Your task to perform on an android device: delete browsing data in the chrome app Image 0: 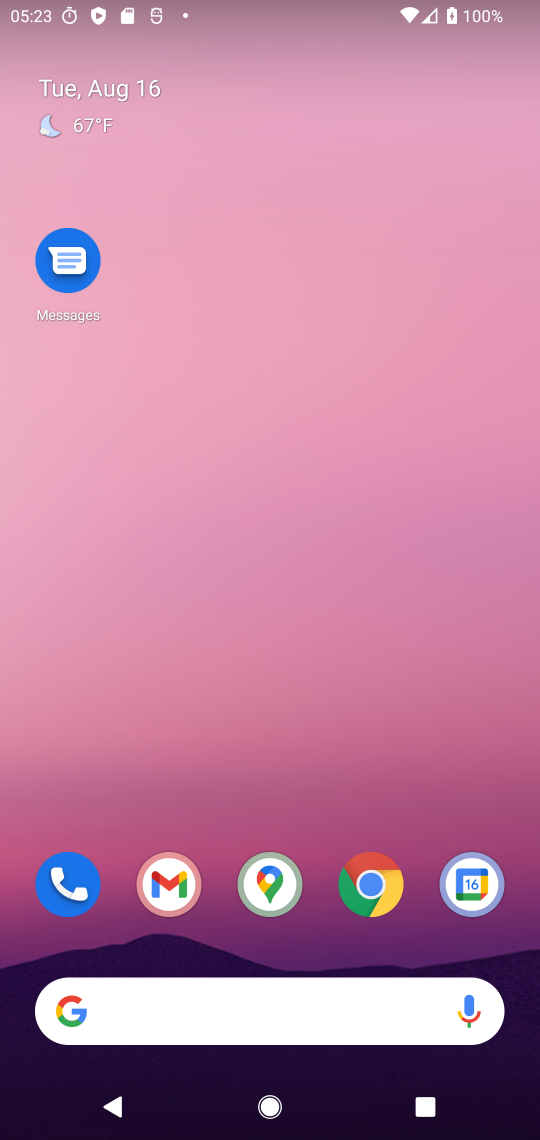
Step 0: click (367, 880)
Your task to perform on an android device: delete browsing data in the chrome app Image 1: 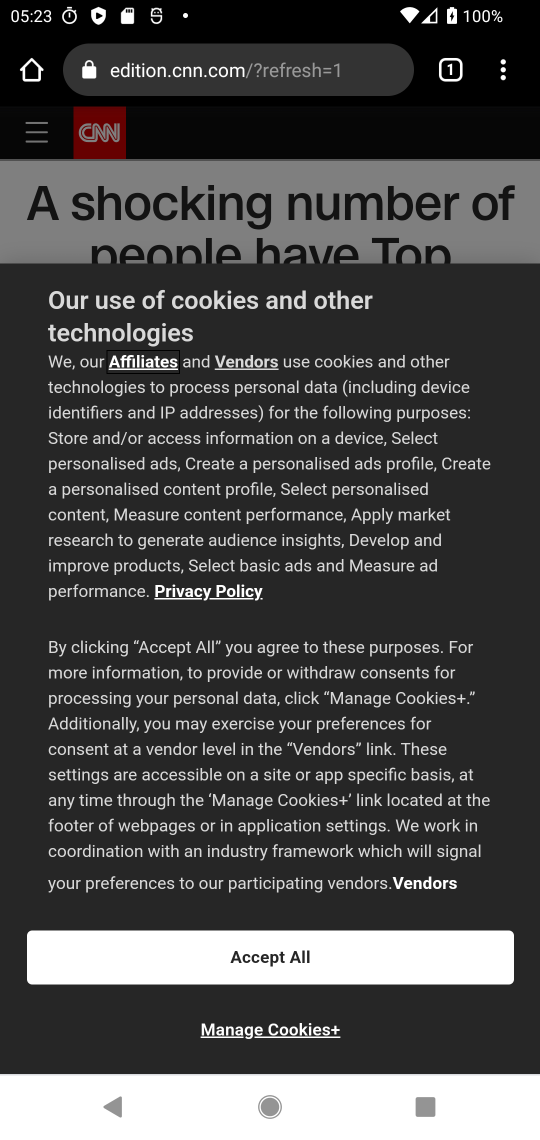
Step 1: click (508, 76)
Your task to perform on an android device: delete browsing data in the chrome app Image 2: 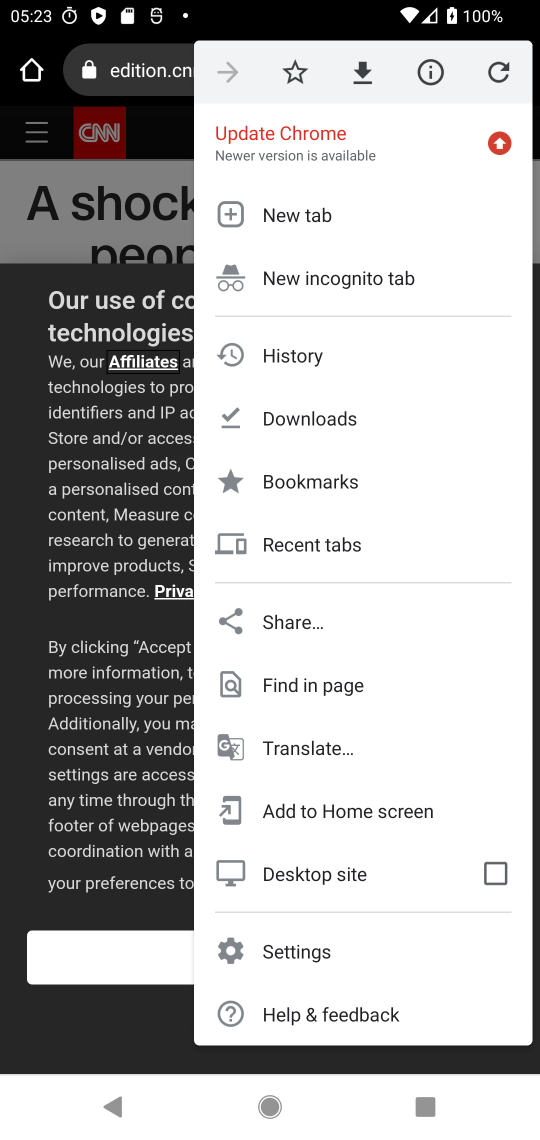
Step 2: click (299, 353)
Your task to perform on an android device: delete browsing data in the chrome app Image 3: 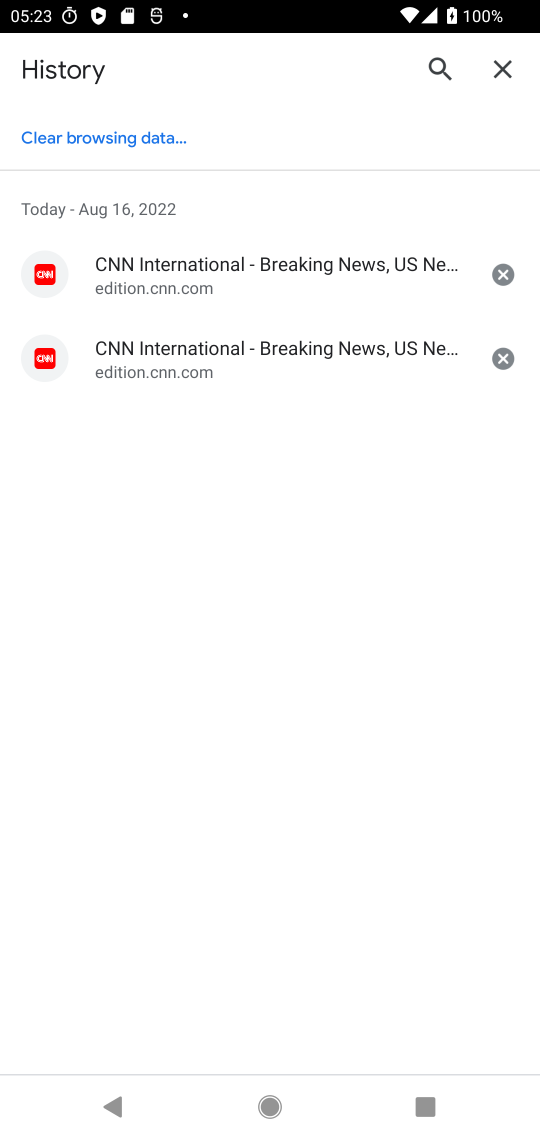
Step 3: click (110, 132)
Your task to perform on an android device: delete browsing data in the chrome app Image 4: 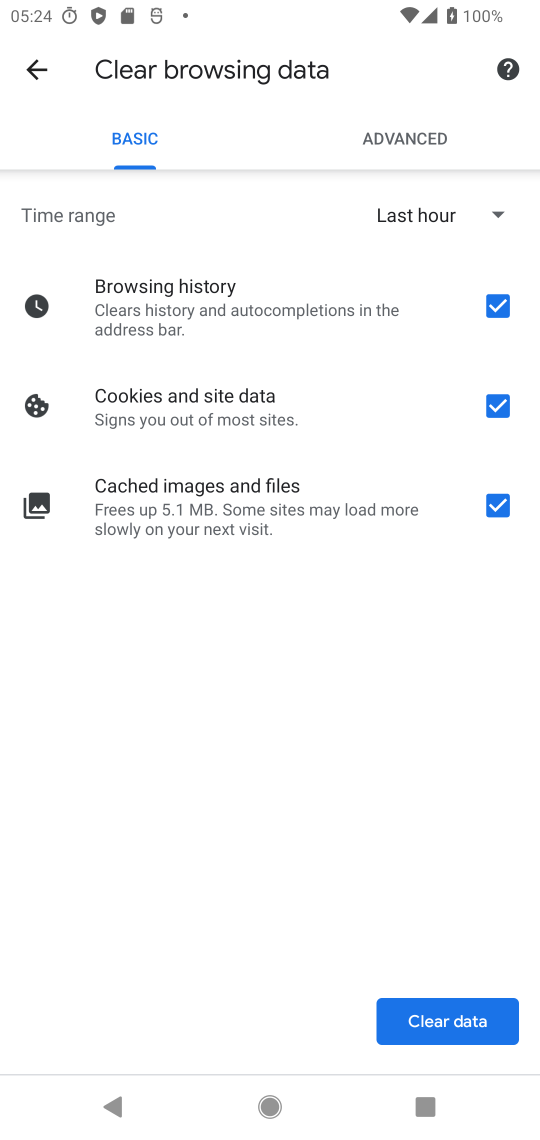
Step 4: click (440, 1022)
Your task to perform on an android device: delete browsing data in the chrome app Image 5: 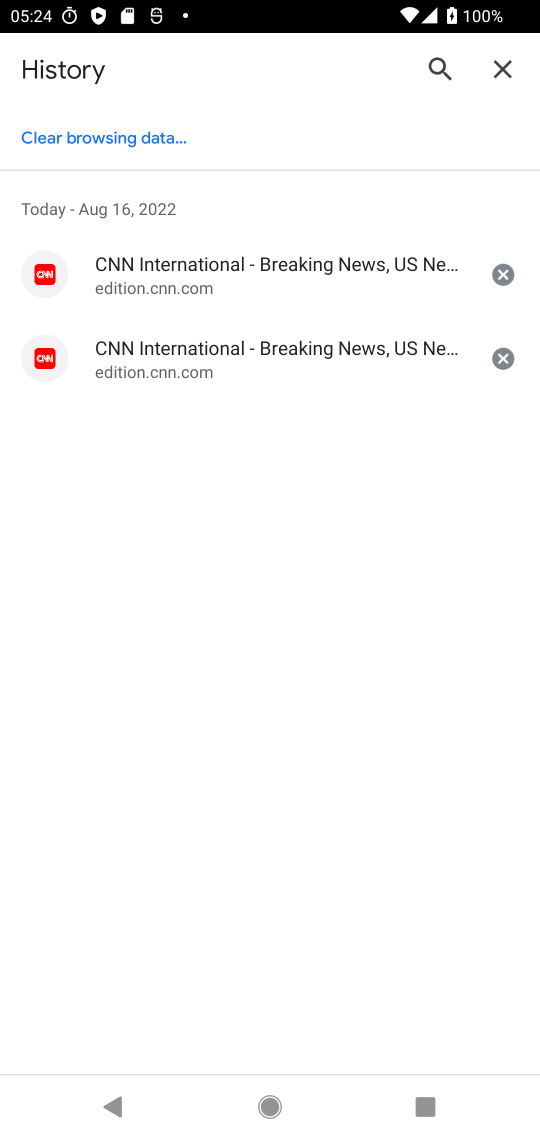
Step 5: click (104, 129)
Your task to perform on an android device: delete browsing data in the chrome app Image 6: 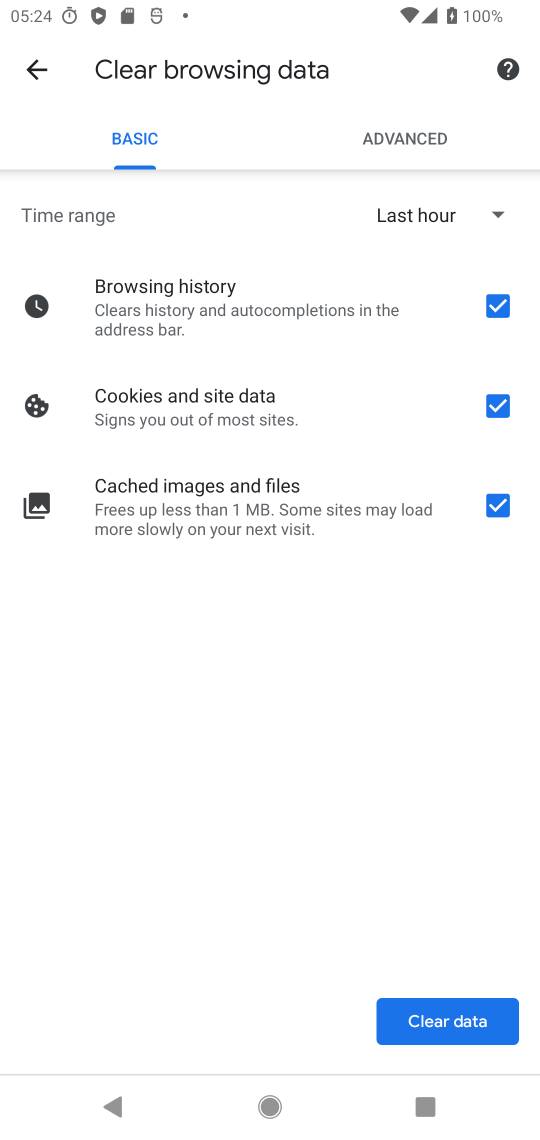
Step 6: click (504, 405)
Your task to perform on an android device: delete browsing data in the chrome app Image 7: 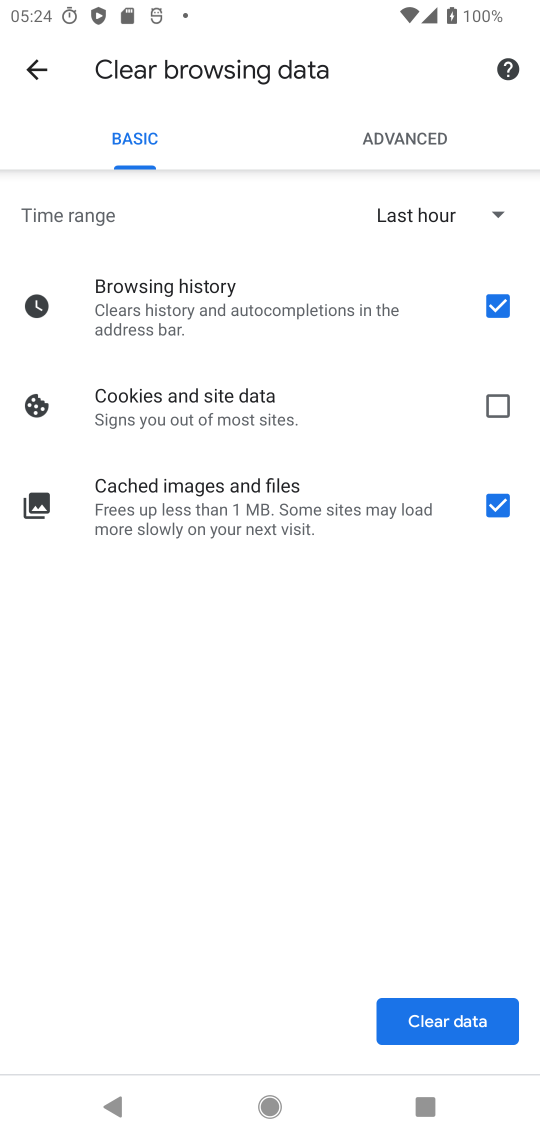
Step 7: click (496, 507)
Your task to perform on an android device: delete browsing data in the chrome app Image 8: 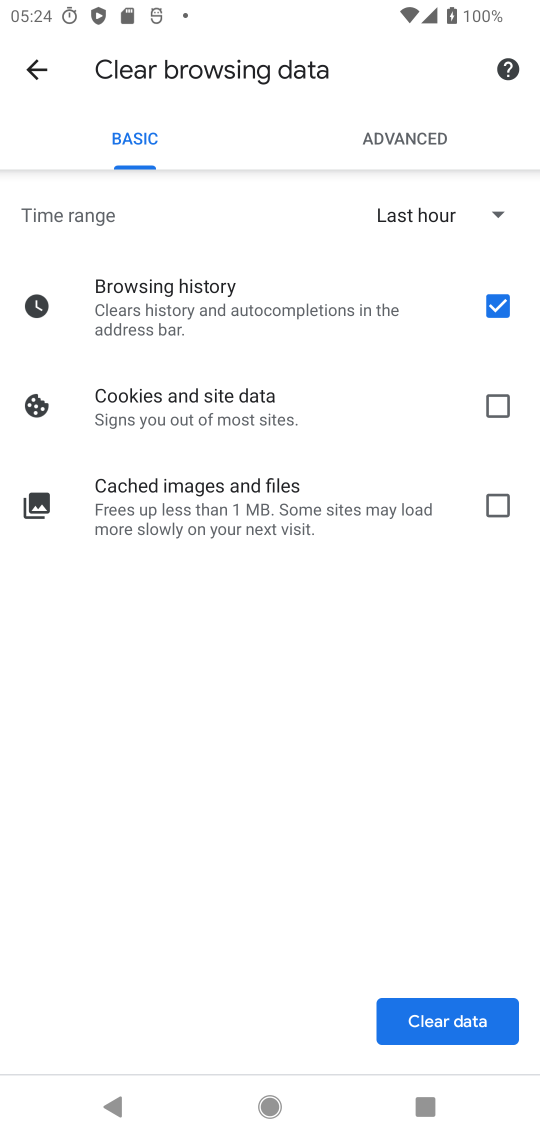
Step 8: click (442, 1024)
Your task to perform on an android device: delete browsing data in the chrome app Image 9: 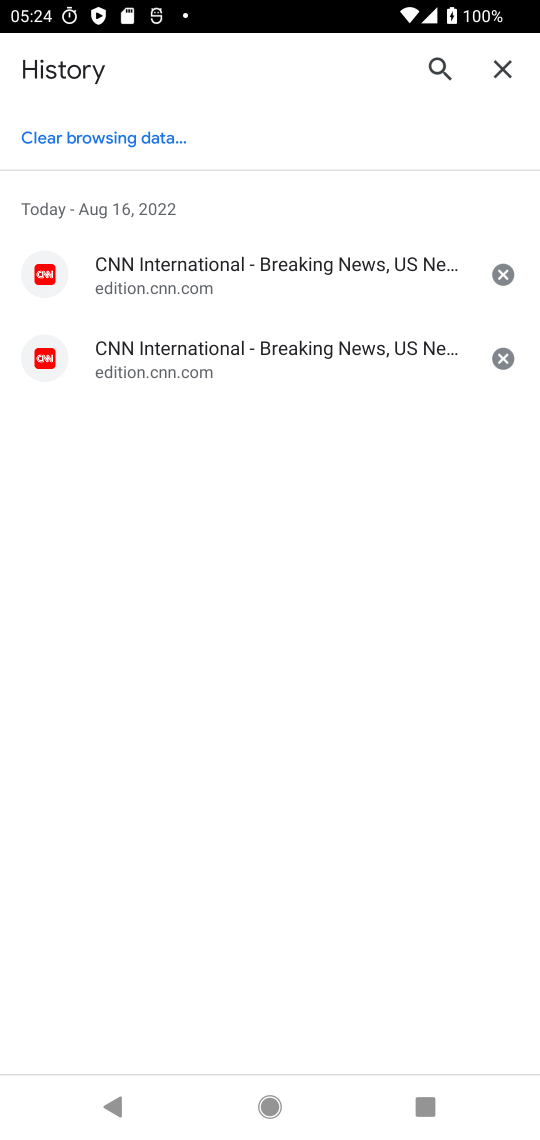
Step 9: click (95, 134)
Your task to perform on an android device: delete browsing data in the chrome app Image 10: 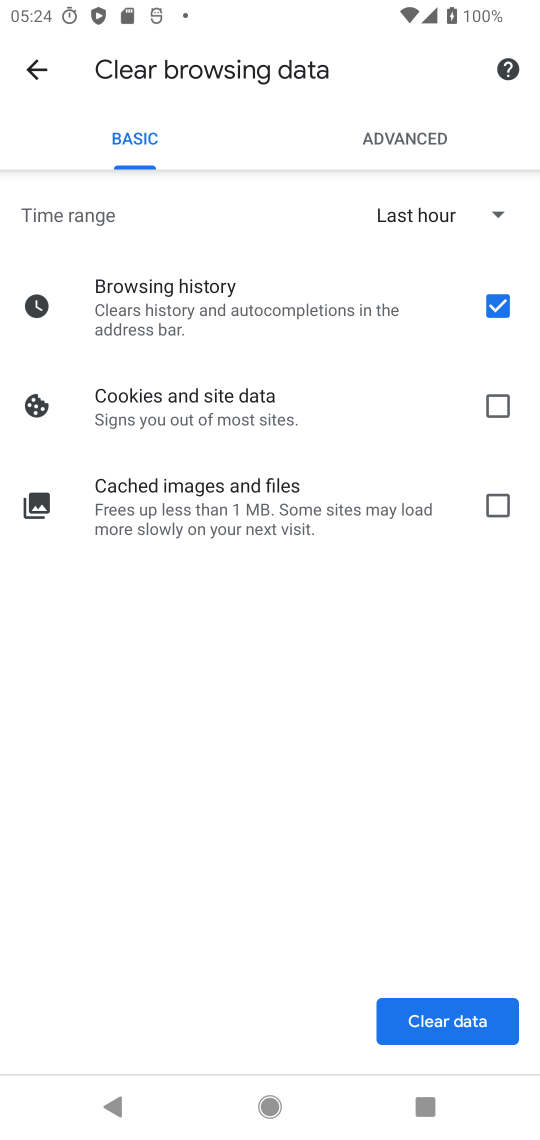
Step 10: click (431, 1015)
Your task to perform on an android device: delete browsing data in the chrome app Image 11: 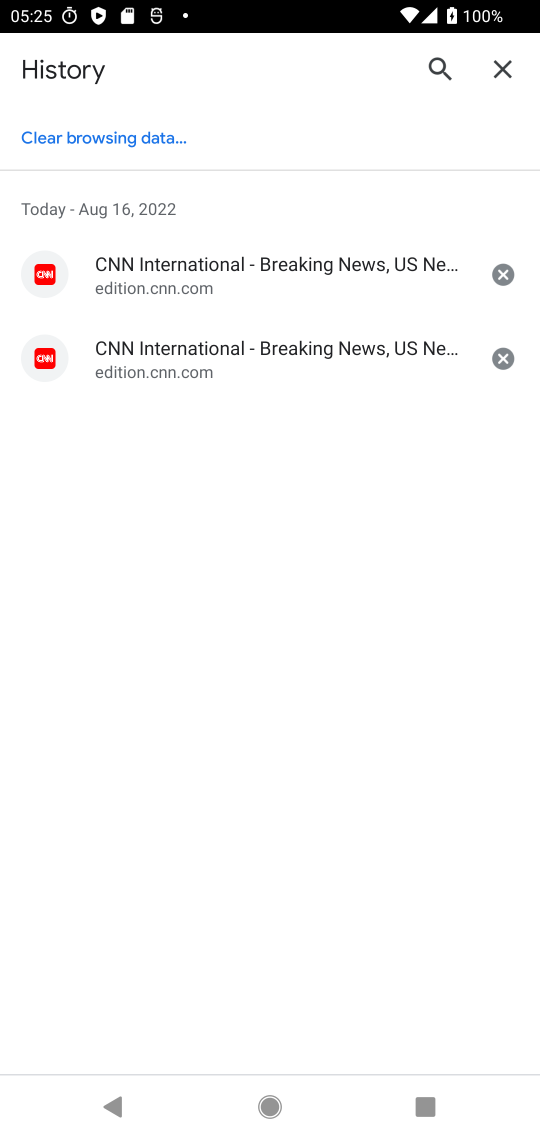
Step 11: task complete